Your task to perform on an android device: Go to Amazon Image 0: 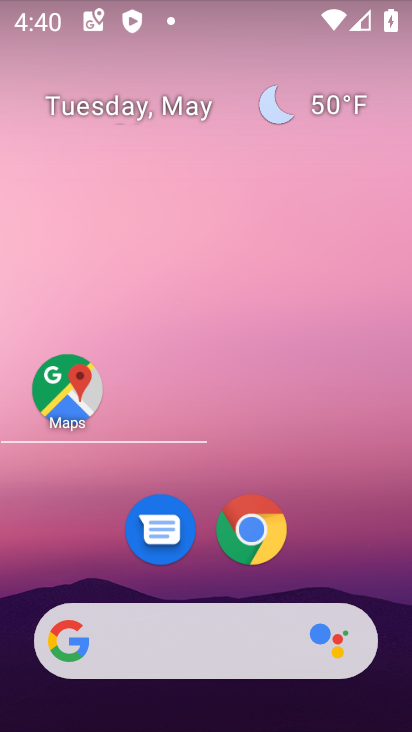
Step 0: click (212, 20)
Your task to perform on an android device: Go to Amazon Image 1: 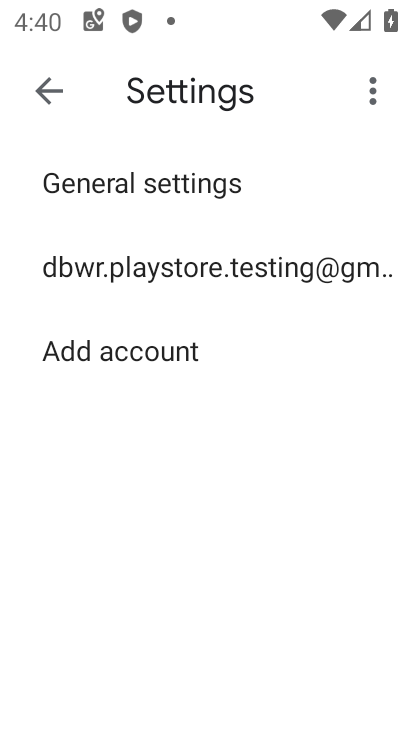
Step 1: press back button
Your task to perform on an android device: Go to Amazon Image 2: 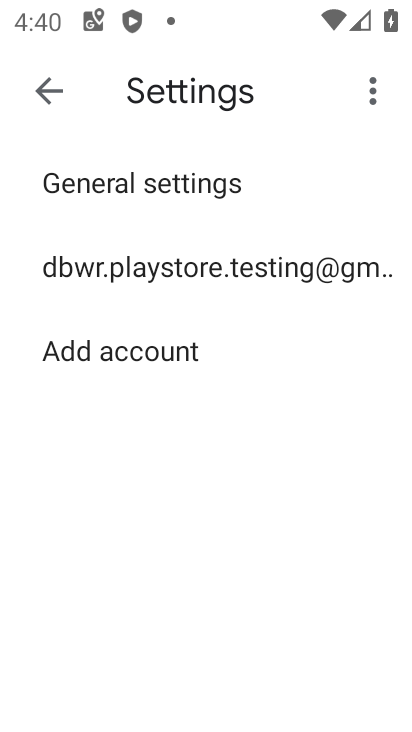
Step 2: press back button
Your task to perform on an android device: Go to Amazon Image 3: 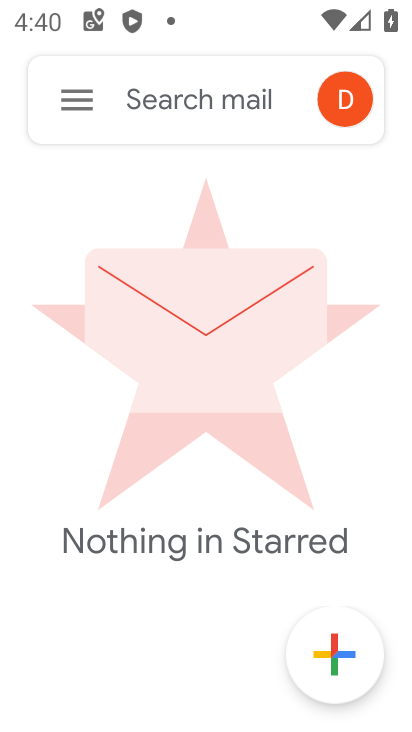
Step 3: press home button
Your task to perform on an android device: Go to Amazon Image 4: 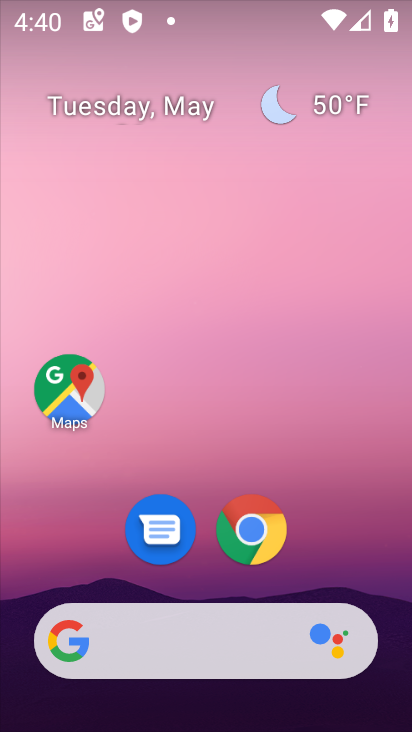
Step 4: drag from (325, 544) to (262, 52)
Your task to perform on an android device: Go to Amazon Image 5: 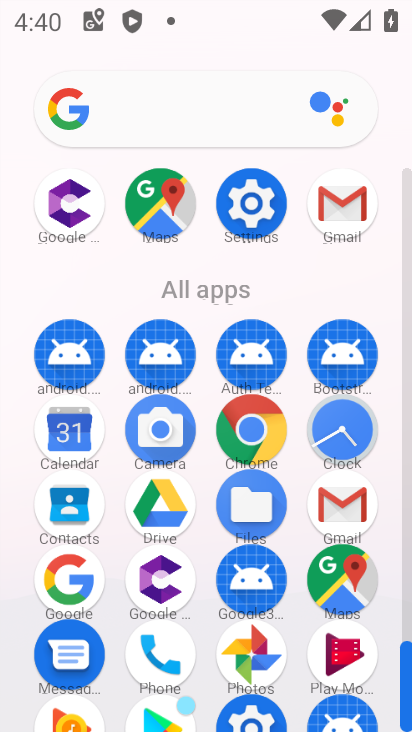
Step 5: click (255, 432)
Your task to perform on an android device: Go to Amazon Image 6: 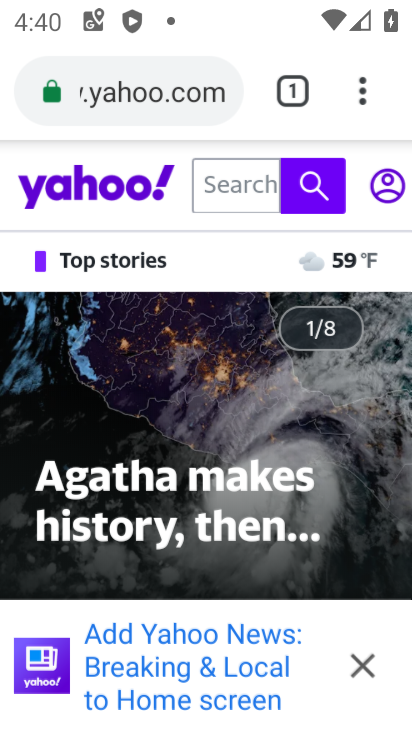
Step 6: click (154, 70)
Your task to perform on an android device: Go to Amazon Image 7: 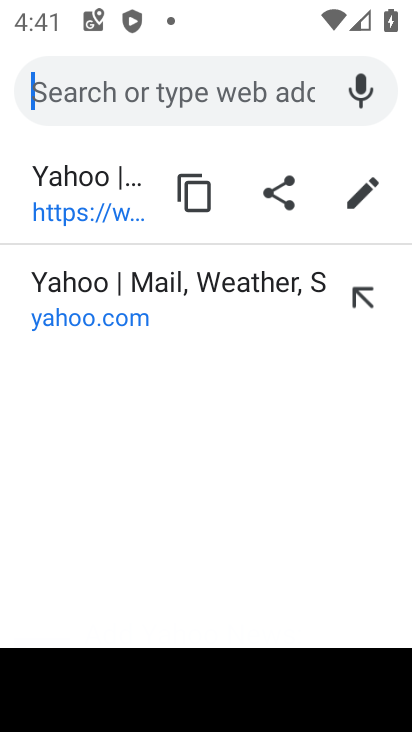
Step 7: type " Amazon"
Your task to perform on an android device: Go to Amazon Image 8: 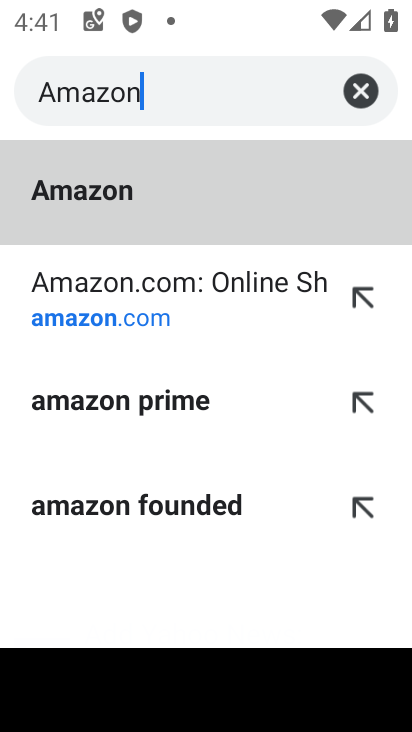
Step 8: type ""
Your task to perform on an android device: Go to Amazon Image 9: 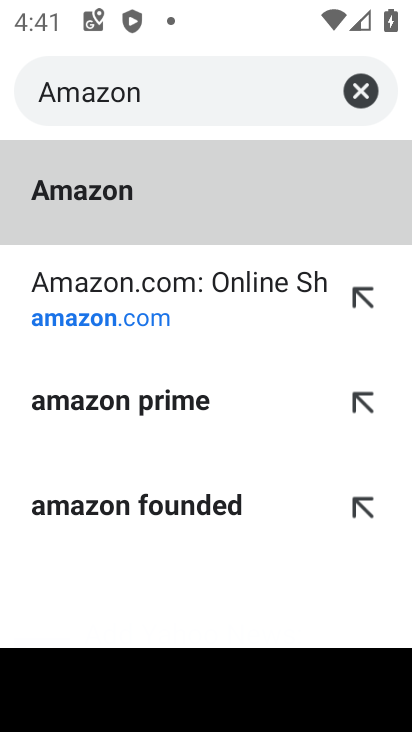
Step 9: click (109, 296)
Your task to perform on an android device: Go to Amazon Image 10: 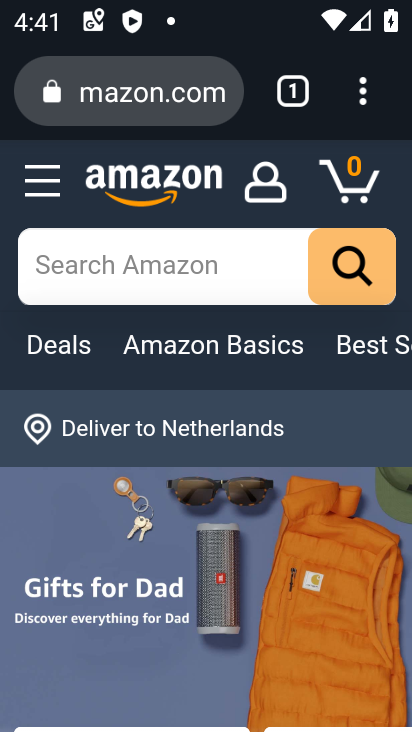
Step 10: task complete